Your task to perform on an android device: Go to ESPN.com Image 0: 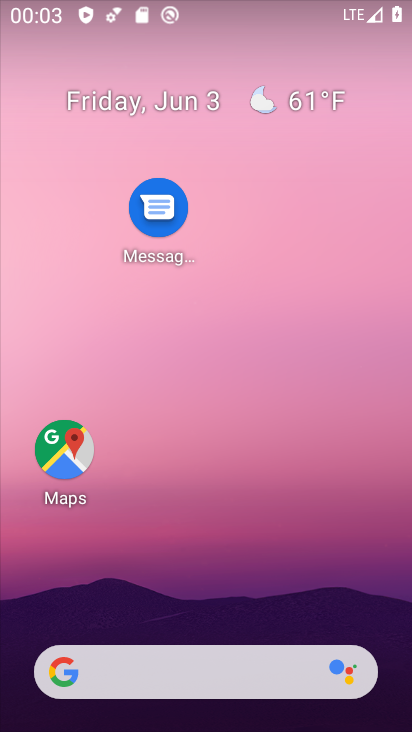
Step 0: drag from (245, 631) to (139, 21)
Your task to perform on an android device: Go to ESPN.com Image 1: 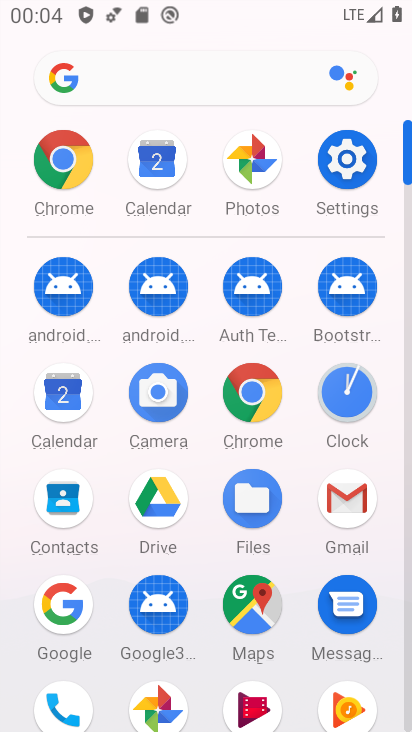
Step 1: click (268, 423)
Your task to perform on an android device: Go to ESPN.com Image 2: 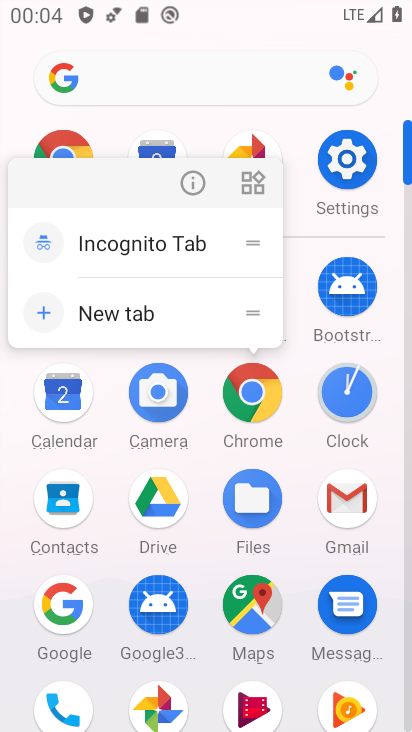
Step 2: click (263, 407)
Your task to perform on an android device: Go to ESPN.com Image 3: 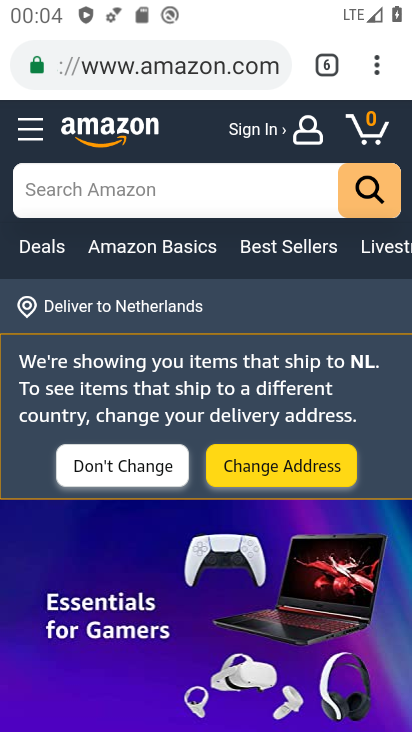
Step 3: click (335, 66)
Your task to perform on an android device: Go to ESPN.com Image 4: 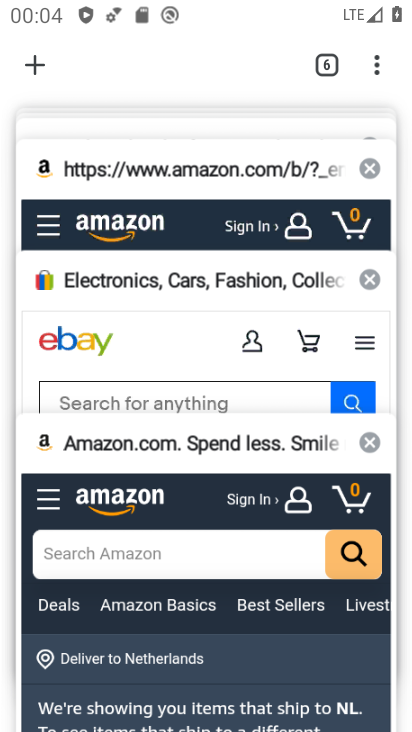
Step 4: click (27, 66)
Your task to perform on an android device: Go to ESPN.com Image 5: 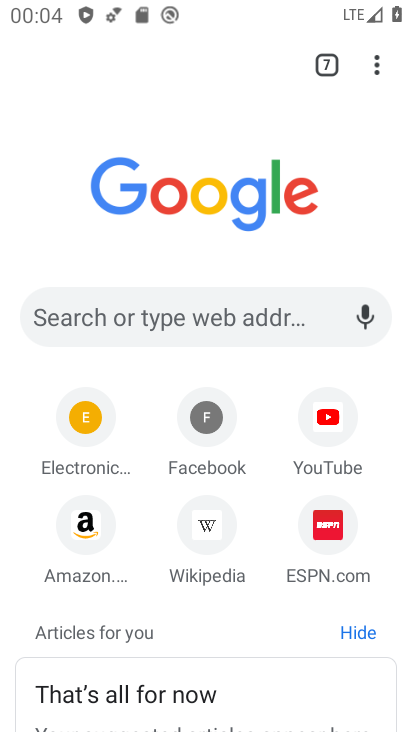
Step 5: click (313, 535)
Your task to perform on an android device: Go to ESPN.com Image 6: 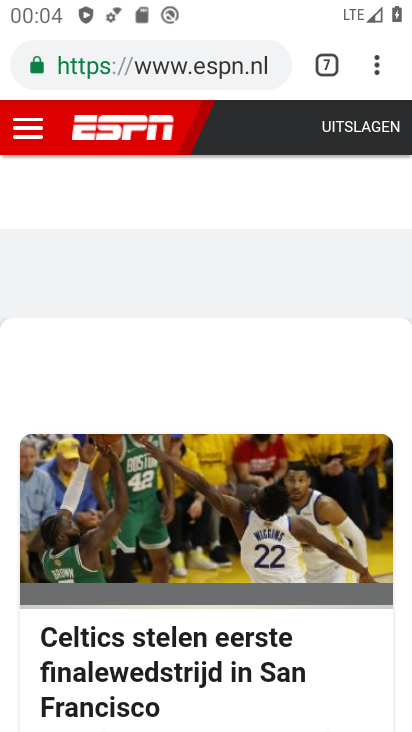
Step 6: task complete